Your task to perform on an android device: turn on javascript in the chrome app Image 0: 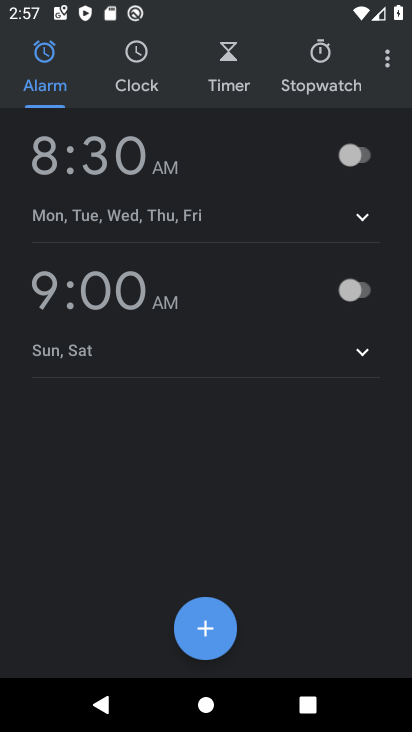
Step 0: press back button
Your task to perform on an android device: turn on javascript in the chrome app Image 1: 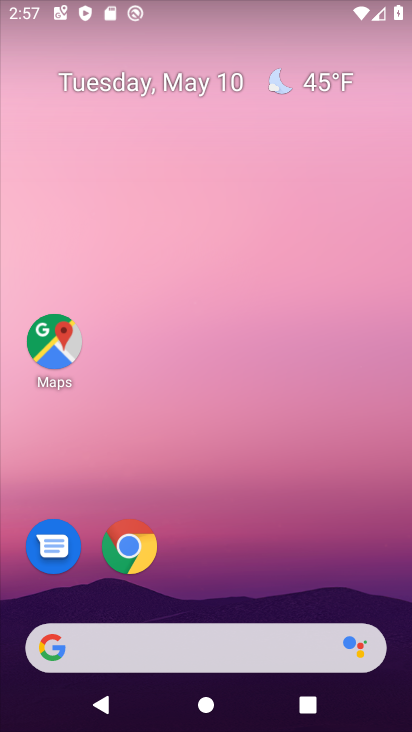
Step 1: drag from (191, 570) to (188, 37)
Your task to perform on an android device: turn on javascript in the chrome app Image 2: 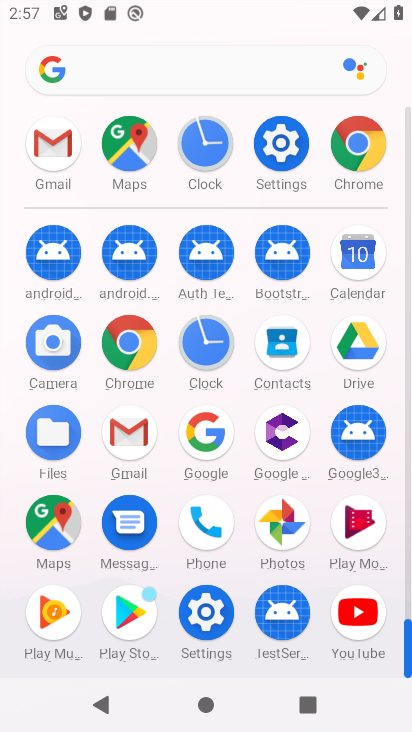
Step 2: click (134, 340)
Your task to perform on an android device: turn on javascript in the chrome app Image 3: 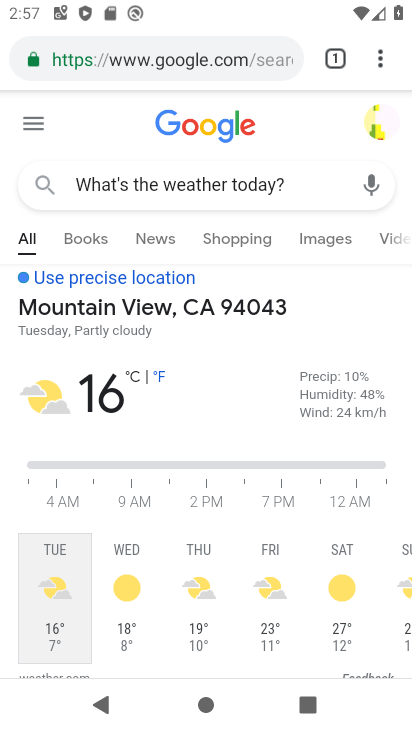
Step 3: drag from (380, 52) to (190, 560)
Your task to perform on an android device: turn on javascript in the chrome app Image 4: 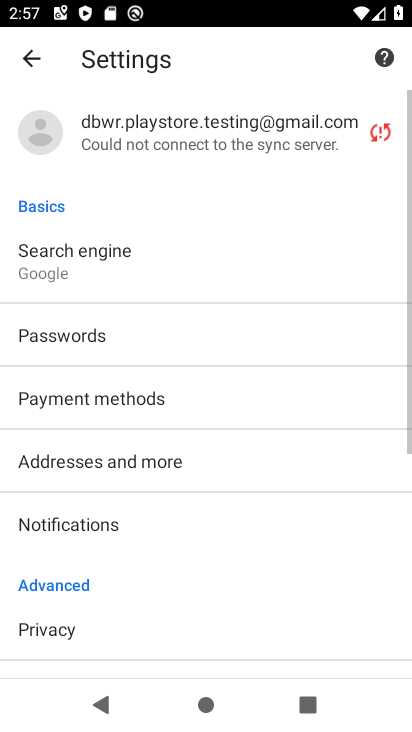
Step 4: drag from (174, 567) to (234, 173)
Your task to perform on an android device: turn on javascript in the chrome app Image 5: 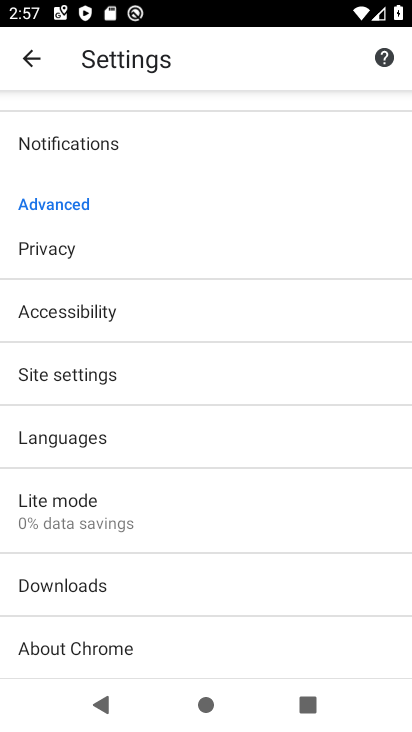
Step 5: click (122, 511)
Your task to perform on an android device: turn on javascript in the chrome app Image 6: 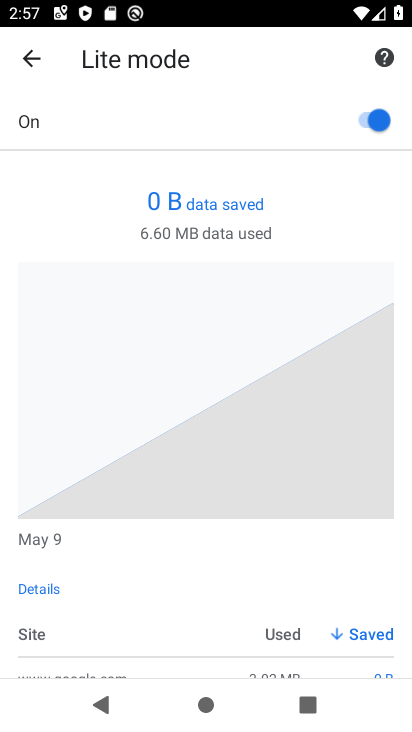
Step 6: click (33, 61)
Your task to perform on an android device: turn on javascript in the chrome app Image 7: 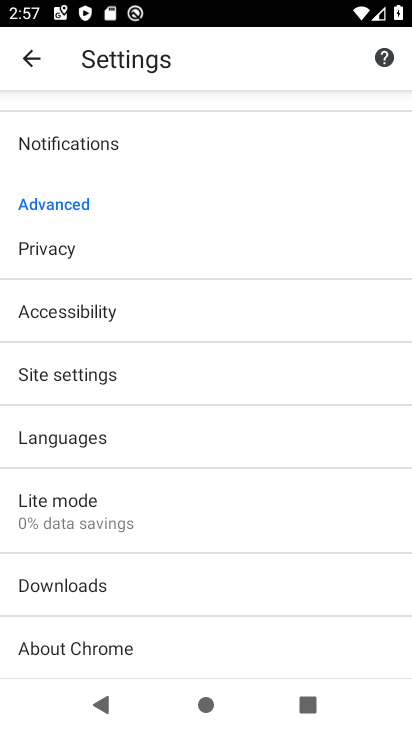
Step 7: click (122, 392)
Your task to perform on an android device: turn on javascript in the chrome app Image 8: 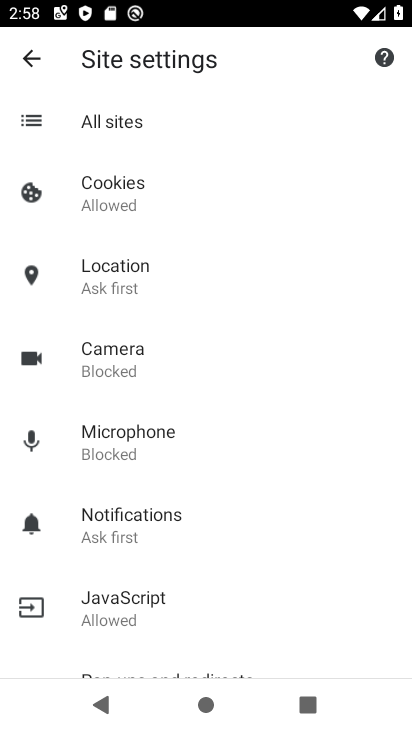
Step 8: click (161, 592)
Your task to perform on an android device: turn on javascript in the chrome app Image 9: 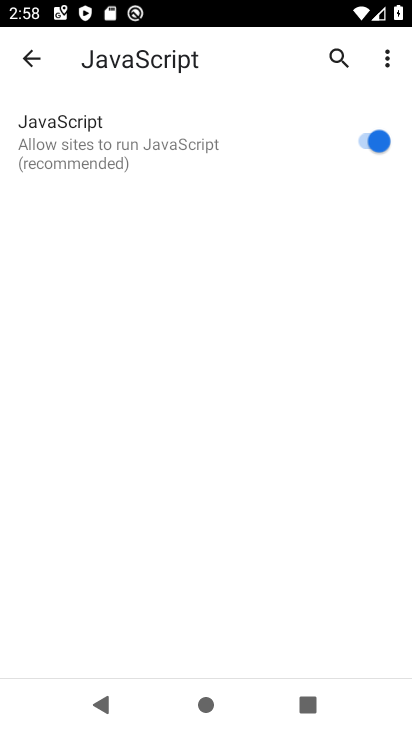
Step 9: task complete